Your task to perform on an android device: Open Chrome and go to settings Image 0: 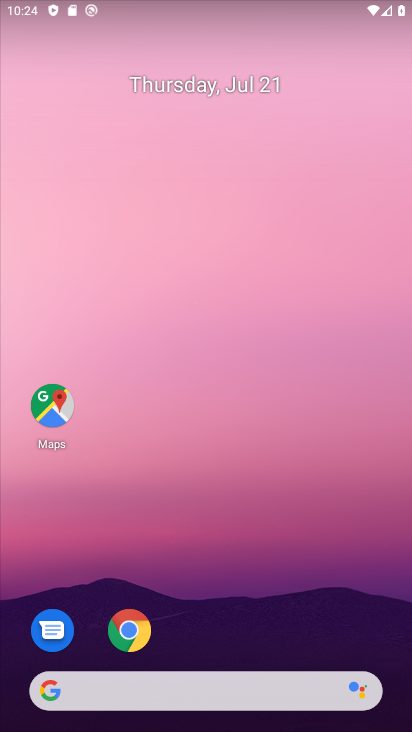
Step 0: click (143, 641)
Your task to perform on an android device: Open Chrome and go to settings Image 1: 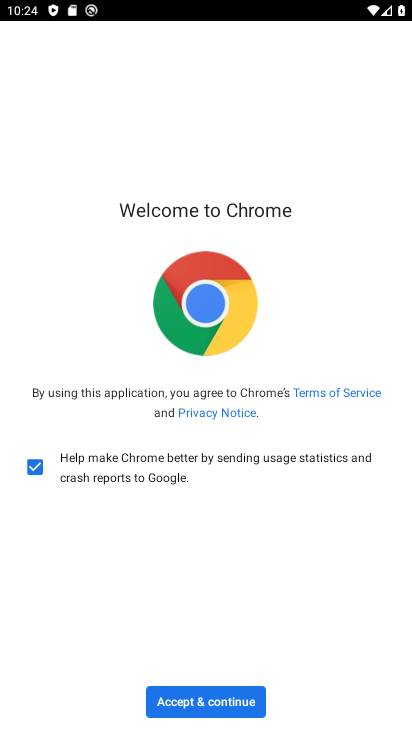
Step 1: click (193, 697)
Your task to perform on an android device: Open Chrome and go to settings Image 2: 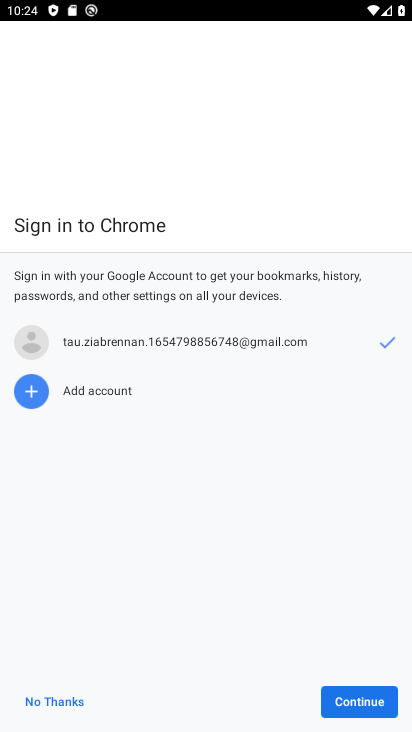
Step 2: click (351, 688)
Your task to perform on an android device: Open Chrome and go to settings Image 3: 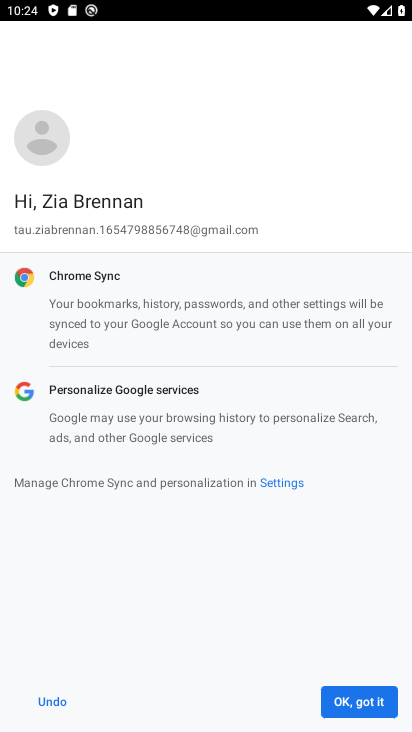
Step 3: click (352, 697)
Your task to perform on an android device: Open Chrome and go to settings Image 4: 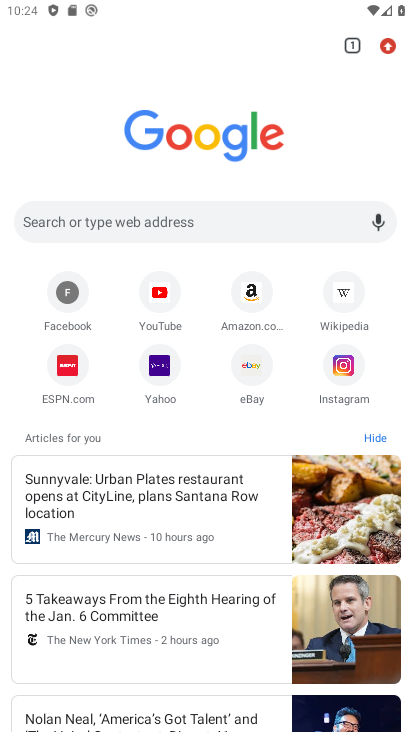
Step 4: click (387, 42)
Your task to perform on an android device: Open Chrome and go to settings Image 5: 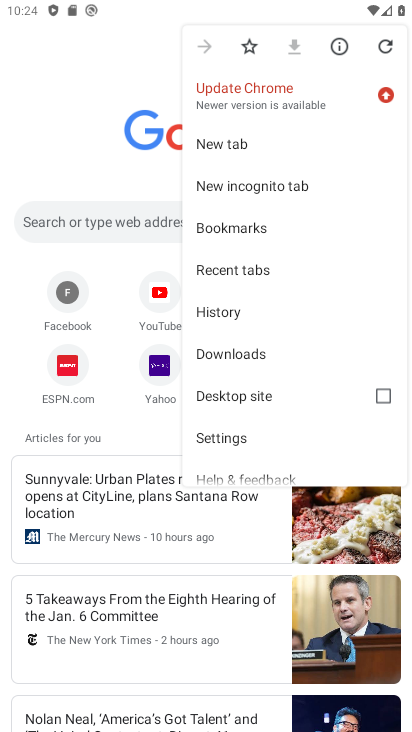
Step 5: click (254, 436)
Your task to perform on an android device: Open Chrome and go to settings Image 6: 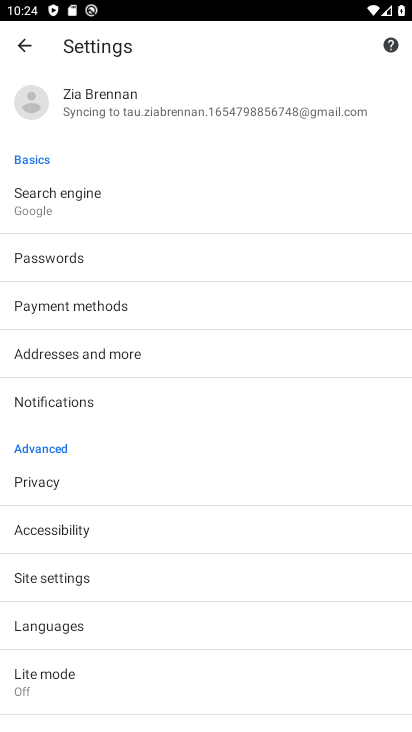
Step 6: click (86, 581)
Your task to perform on an android device: Open Chrome and go to settings Image 7: 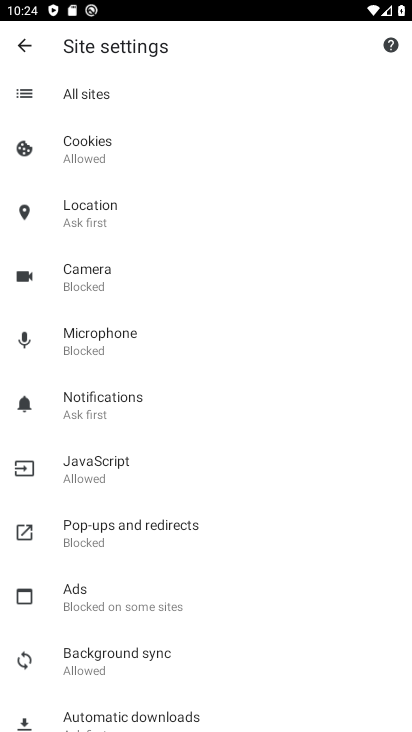
Step 7: task complete